Your task to perform on an android device: Show me popular games on the Play Store Image 0: 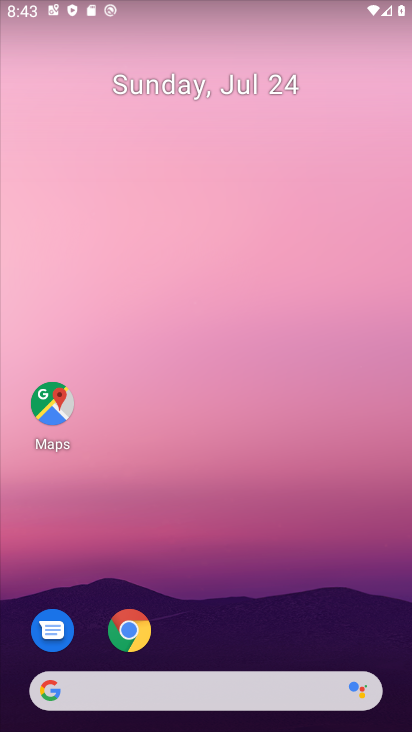
Step 0: drag from (193, 634) to (165, 87)
Your task to perform on an android device: Show me popular games on the Play Store Image 1: 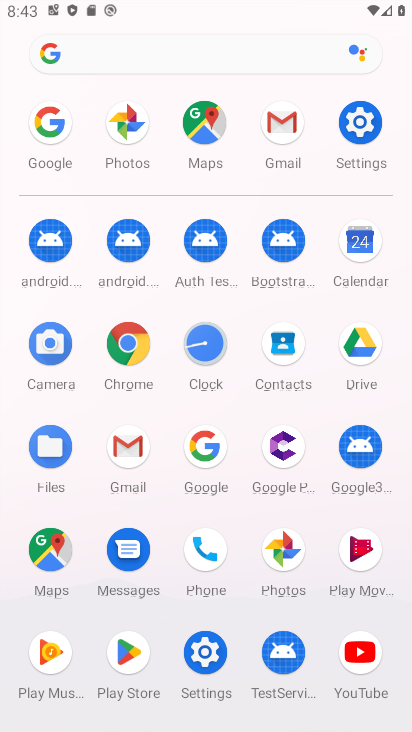
Step 1: click (124, 663)
Your task to perform on an android device: Show me popular games on the Play Store Image 2: 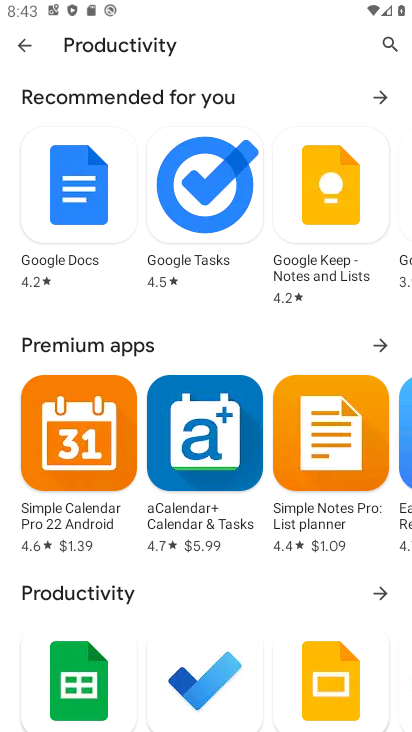
Step 2: click (28, 49)
Your task to perform on an android device: Show me popular games on the Play Store Image 3: 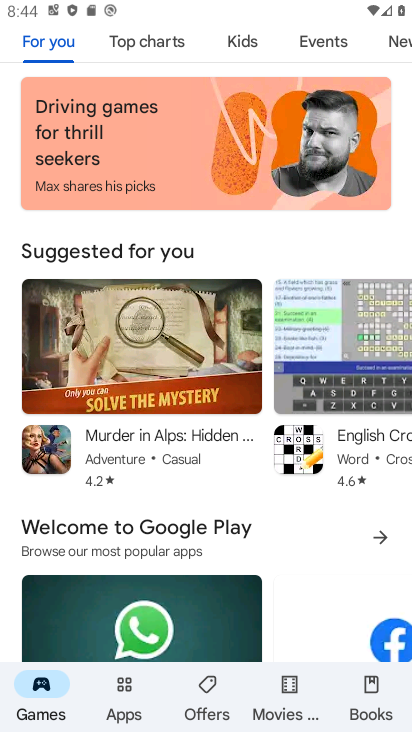
Step 3: click (166, 51)
Your task to perform on an android device: Show me popular games on the Play Store Image 4: 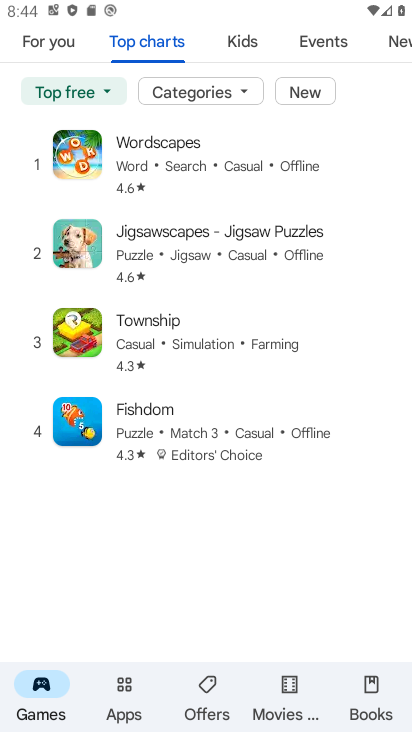
Step 4: task complete